Your task to perform on an android device: empty trash in google photos Image 0: 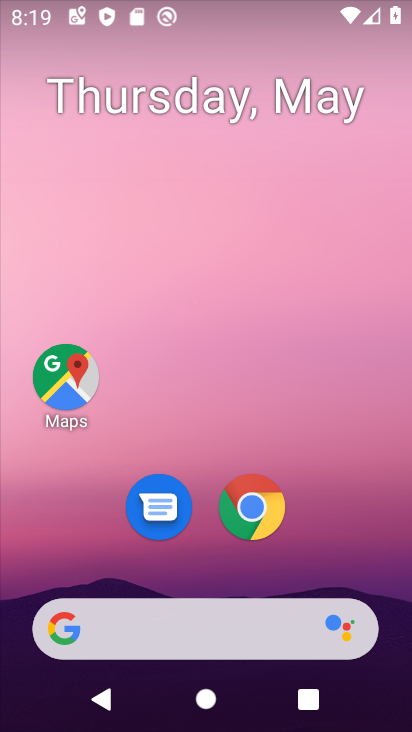
Step 0: drag from (219, 652) to (258, 213)
Your task to perform on an android device: empty trash in google photos Image 1: 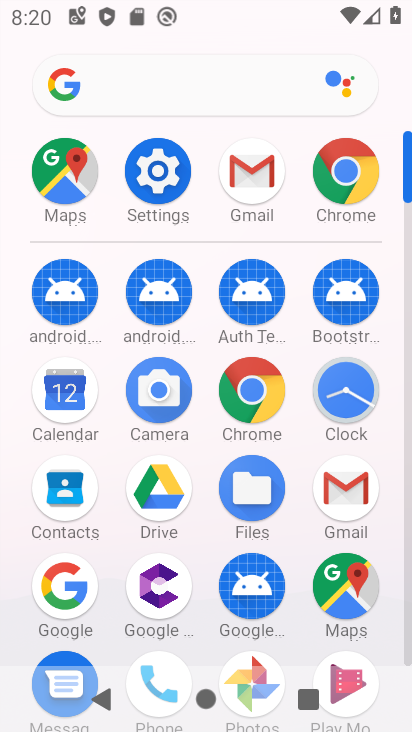
Step 1: click (261, 658)
Your task to perform on an android device: empty trash in google photos Image 2: 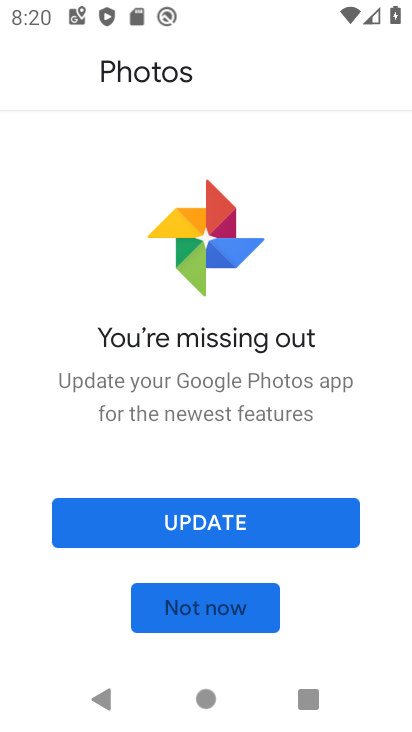
Step 2: click (207, 620)
Your task to perform on an android device: empty trash in google photos Image 3: 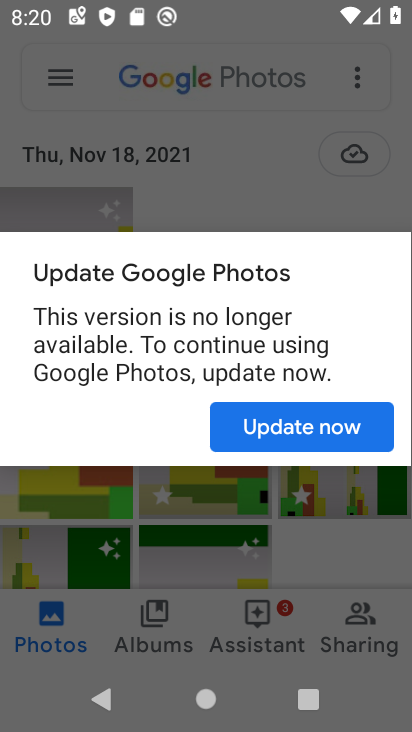
Step 3: click (326, 437)
Your task to perform on an android device: empty trash in google photos Image 4: 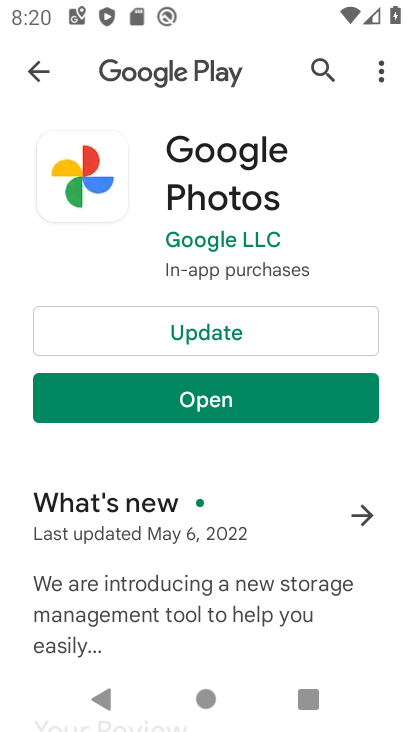
Step 4: click (222, 319)
Your task to perform on an android device: empty trash in google photos Image 5: 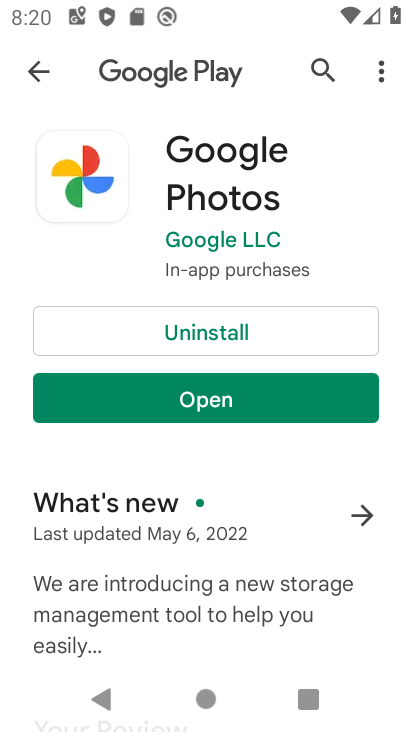
Step 5: click (198, 388)
Your task to perform on an android device: empty trash in google photos Image 6: 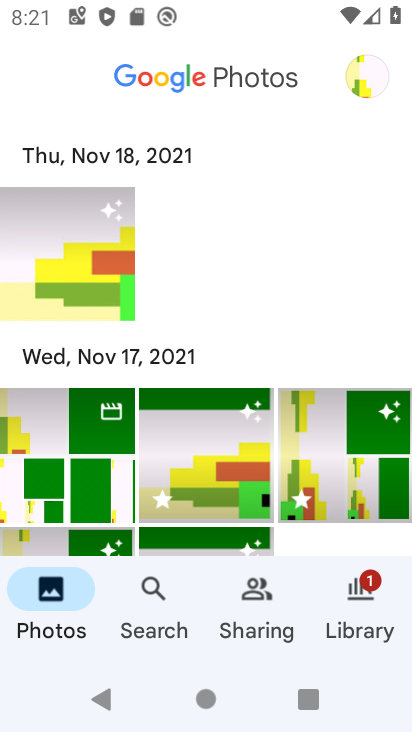
Step 6: click (144, 585)
Your task to perform on an android device: empty trash in google photos Image 7: 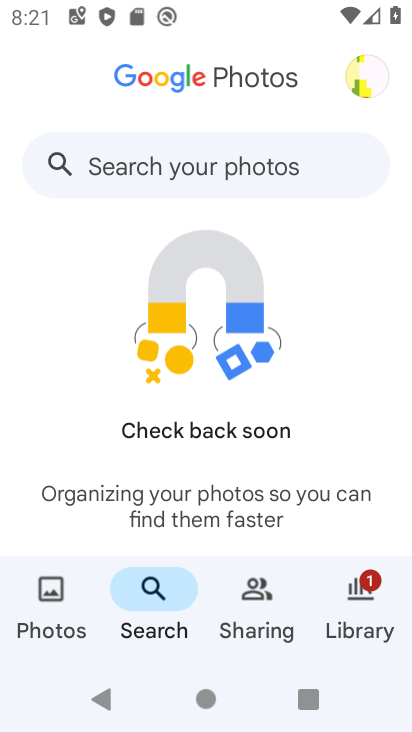
Step 7: click (160, 173)
Your task to perform on an android device: empty trash in google photos Image 8: 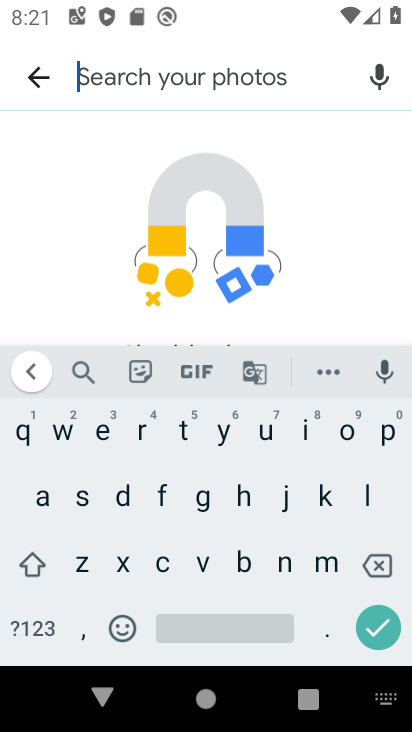
Step 8: click (181, 433)
Your task to perform on an android device: empty trash in google photos Image 9: 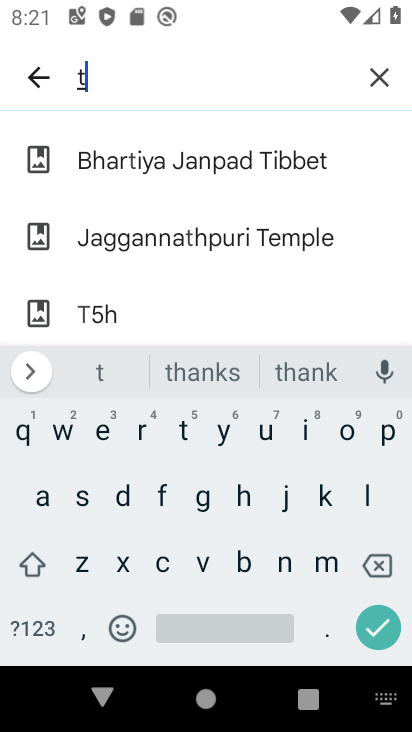
Step 9: click (143, 434)
Your task to perform on an android device: empty trash in google photos Image 10: 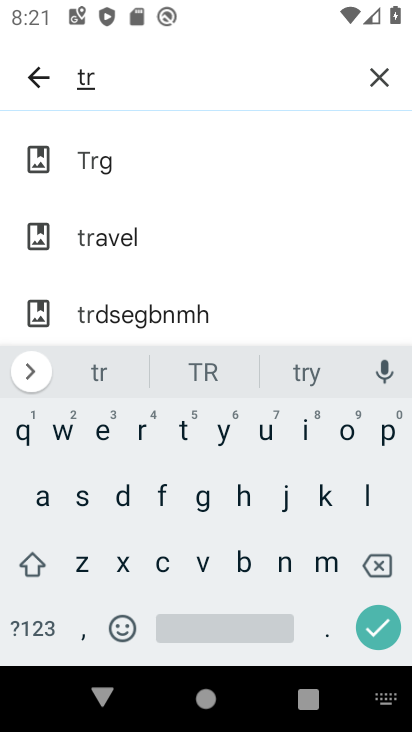
Step 10: click (44, 490)
Your task to perform on an android device: empty trash in google photos Image 11: 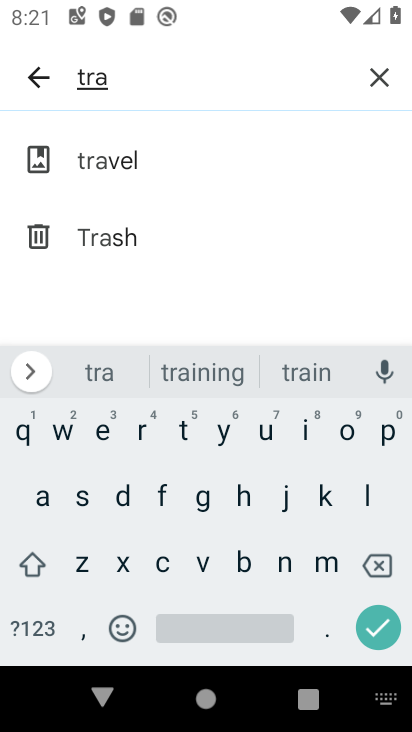
Step 11: click (131, 243)
Your task to perform on an android device: empty trash in google photos Image 12: 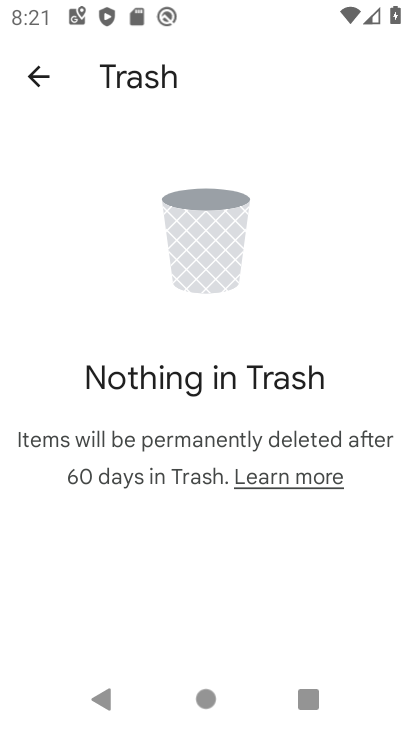
Step 12: task complete